Your task to perform on an android device: allow cookies in the chrome app Image 0: 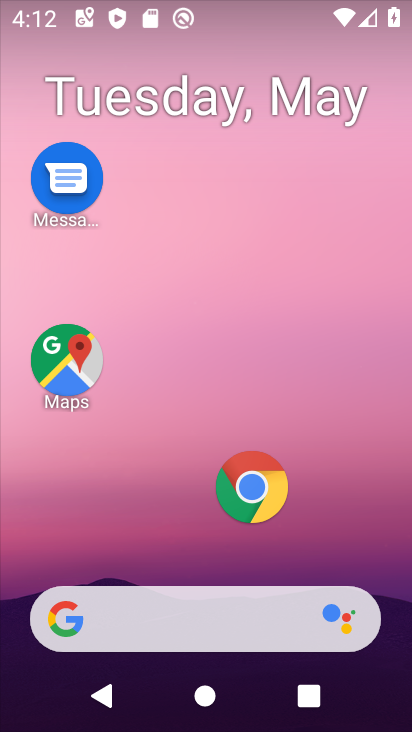
Step 0: click (253, 508)
Your task to perform on an android device: allow cookies in the chrome app Image 1: 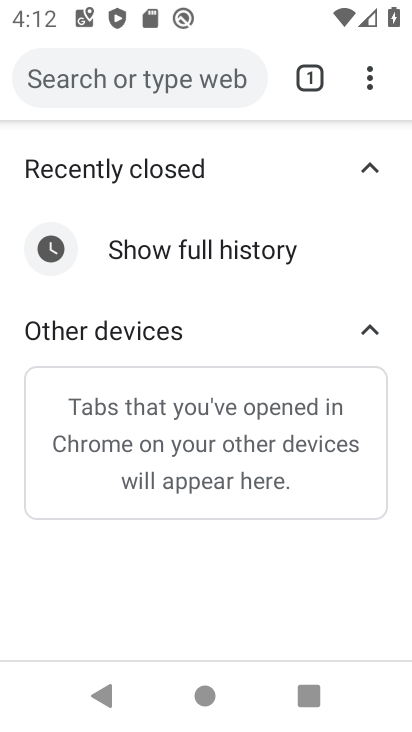
Step 1: click (372, 89)
Your task to perform on an android device: allow cookies in the chrome app Image 2: 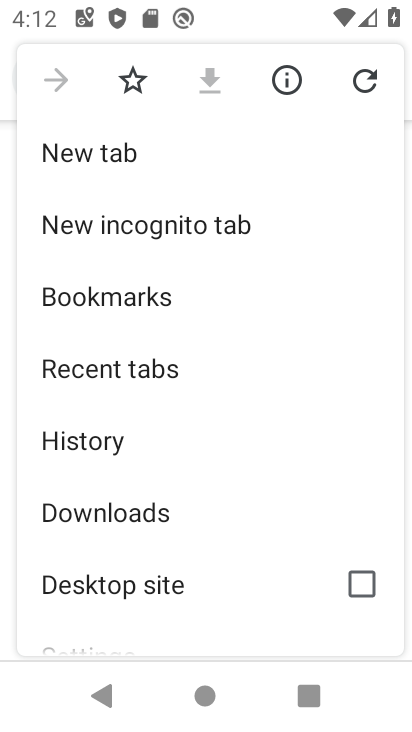
Step 2: drag from (218, 444) to (298, 236)
Your task to perform on an android device: allow cookies in the chrome app Image 3: 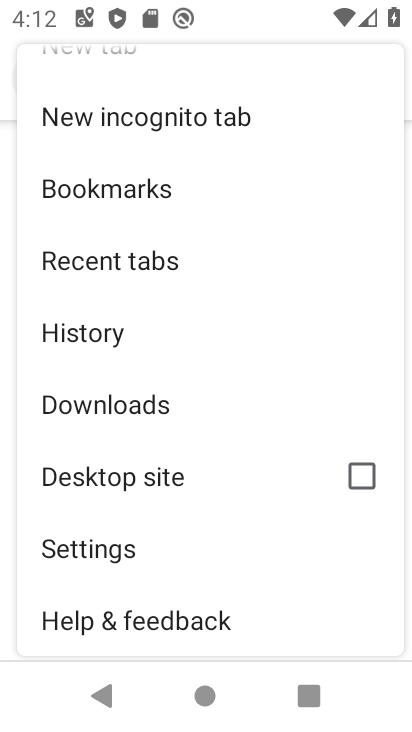
Step 3: click (89, 535)
Your task to perform on an android device: allow cookies in the chrome app Image 4: 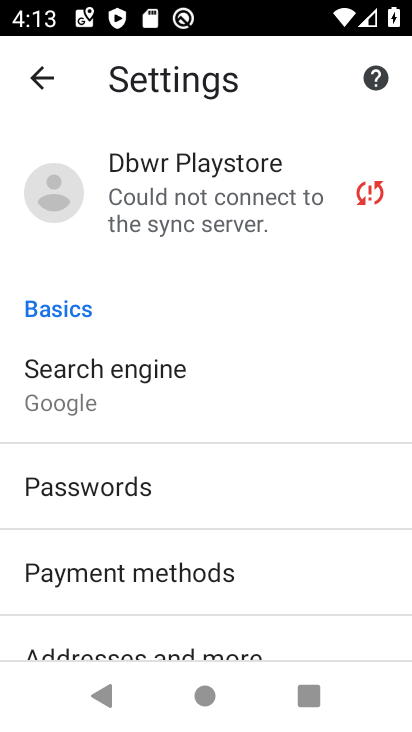
Step 4: drag from (133, 602) to (157, 293)
Your task to perform on an android device: allow cookies in the chrome app Image 5: 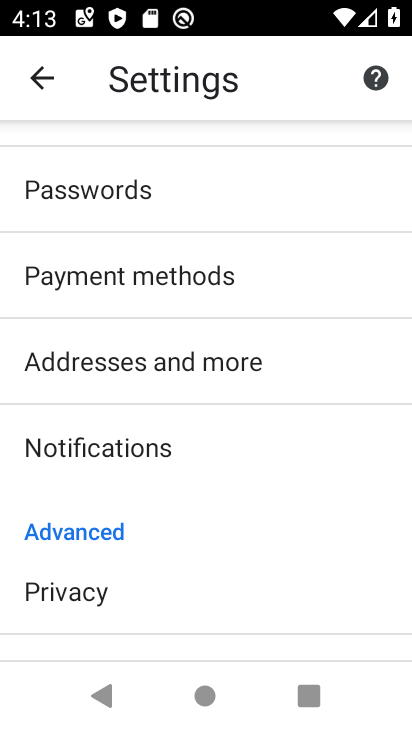
Step 5: drag from (161, 319) to (166, 269)
Your task to perform on an android device: allow cookies in the chrome app Image 6: 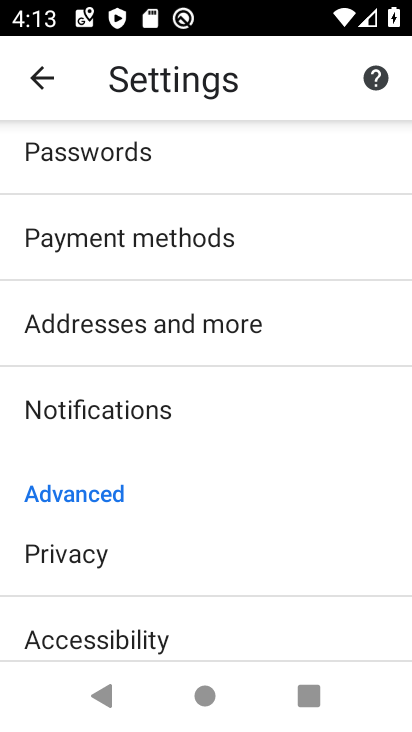
Step 6: drag from (200, 416) to (219, 218)
Your task to perform on an android device: allow cookies in the chrome app Image 7: 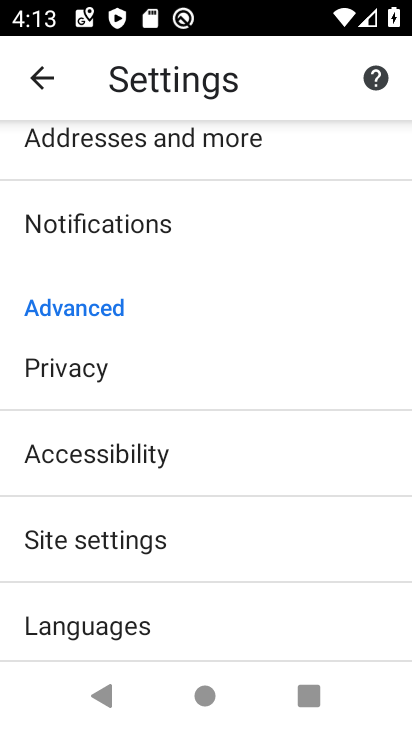
Step 7: drag from (141, 598) to (203, 262)
Your task to perform on an android device: allow cookies in the chrome app Image 8: 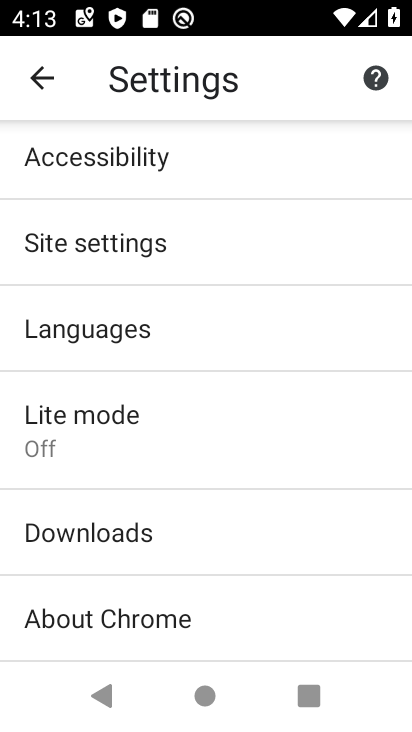
Step 8: click (85, 235)
Your task to perform on an android device: allow cookies in the chrome app Image 9: 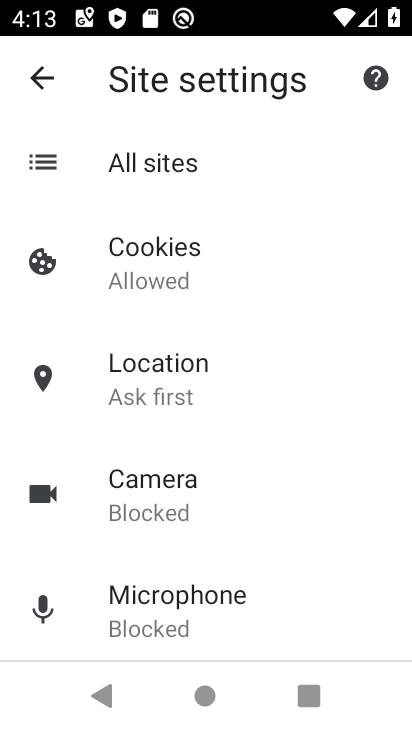
Step 9: task complete